Your task to perform on an android device: clear all cookies in the chrome app Image 0: 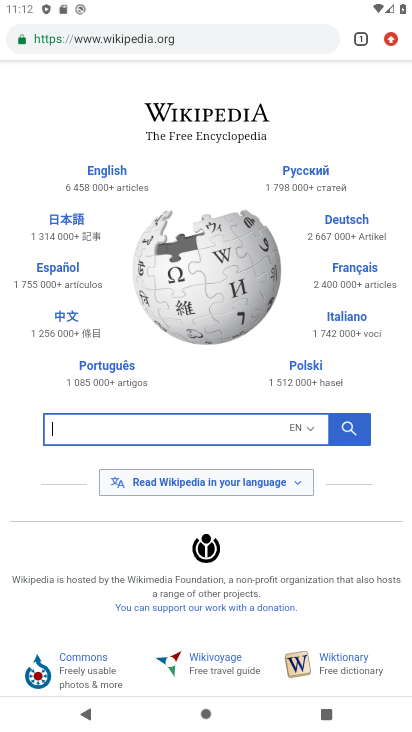
Step 0: click (388, 43)
Your task to perform on an android device: clear all cookies in the chrome app Image 1: 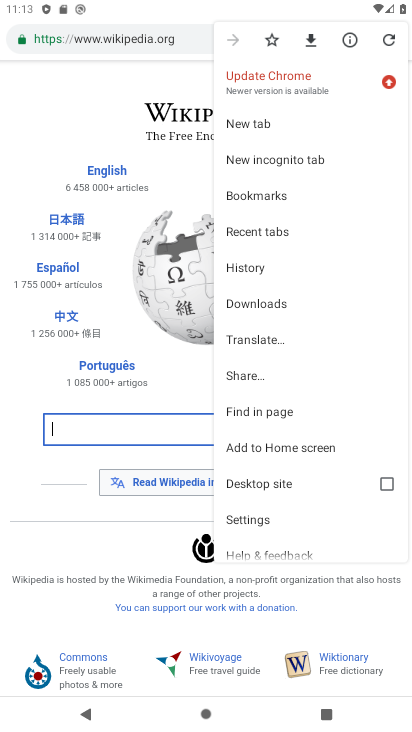
Step 1: click (250, 266)
Your task to perform on an android device: clear all cookies in the chrome app Image 2: 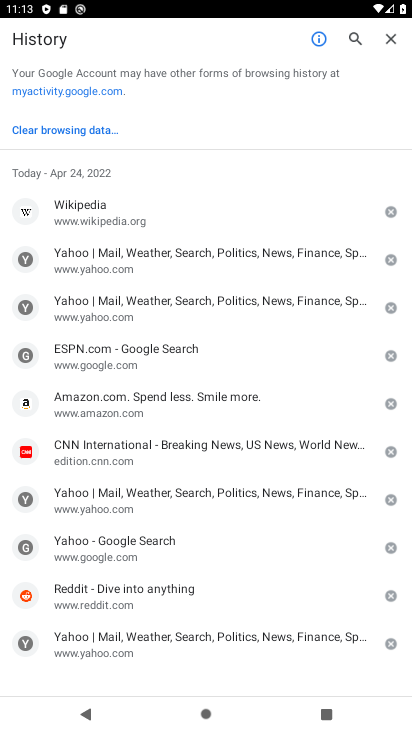
Step 2: click (82, 130)
Your task to perform on an android device: clear all cookies in the chrome app Image 3: 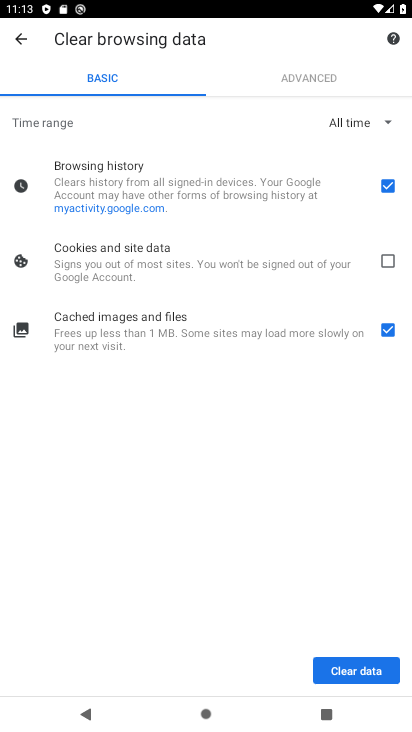
Step 3: click (388, 263)
Your task to perform on an android device: clear all cookies in the chrome app Image 4: 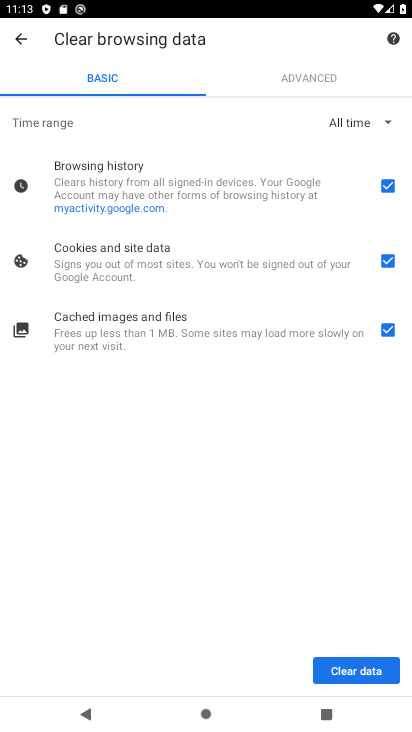
Step 4: click (386, 332)
Your task to perform on an android device: clear all cookies in the chrome app Image 5: 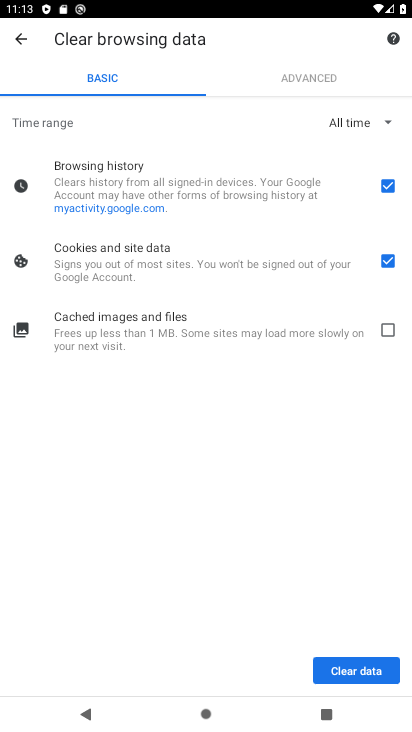
Step 5: click (386, 182)
Your task to perform on an android device: clear all cookies in the chrome app Image 6: 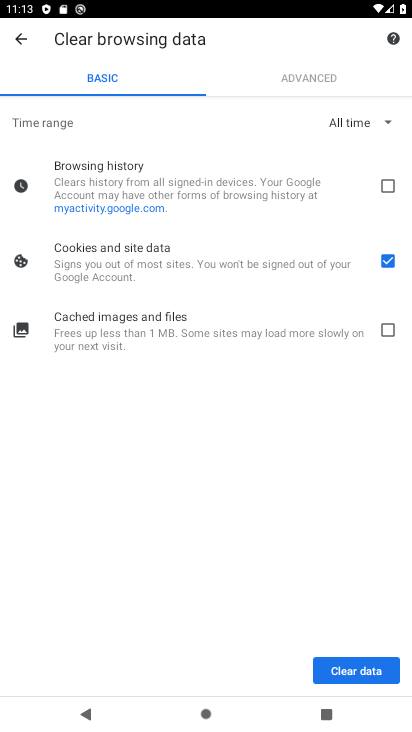
Step 6: click (342, 668)
Your task to perform on an android device: clear all cookies in the chrome app Image 7: 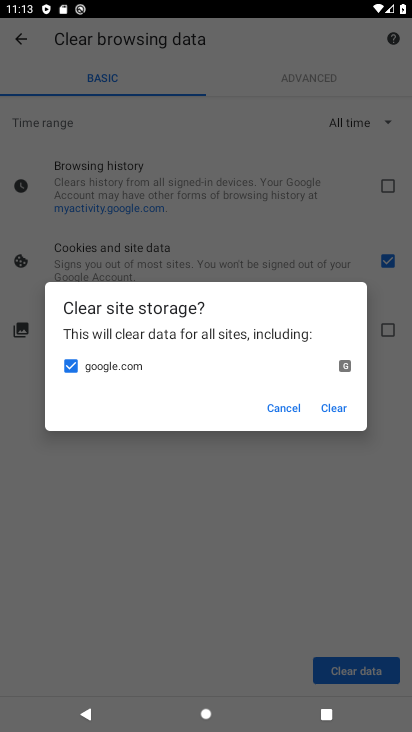
Step 7: click (336, 406)
Your task to perform on an android device: clear all cookies in the chrome app Image 8: 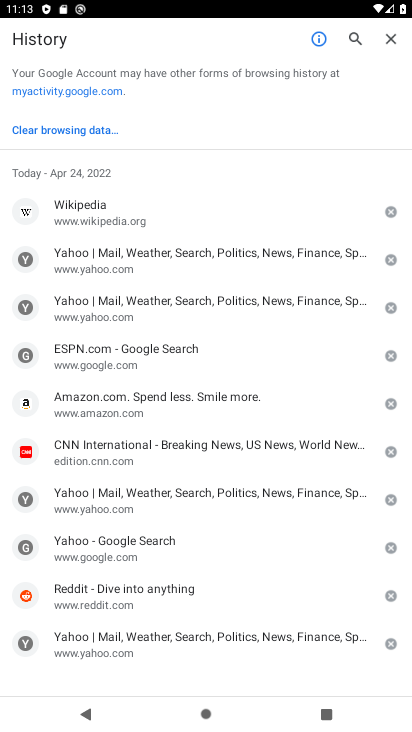
Step 8: task complete